Your task to perform on an android device: turn on the 12-hour format for clock Image 0: 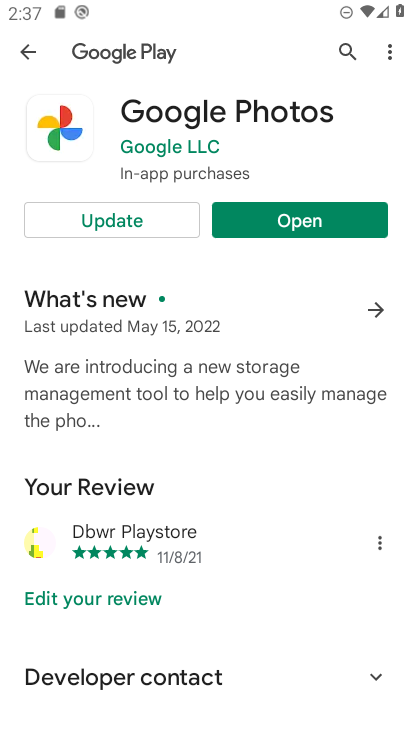
Step 0: press home button
Your task to perform on an android device: turn on the 12-hour format for clock Image 1: 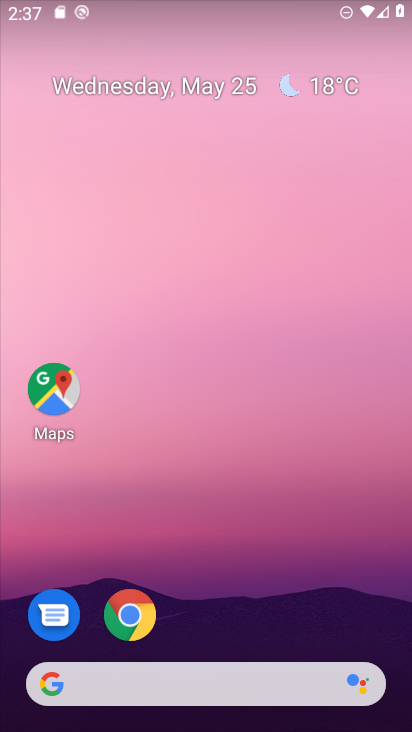
Step 1: drag from (238, 560) to (330, 50)
Your task to perform on an android device: turn on the 12-hour format for clock Image 2: 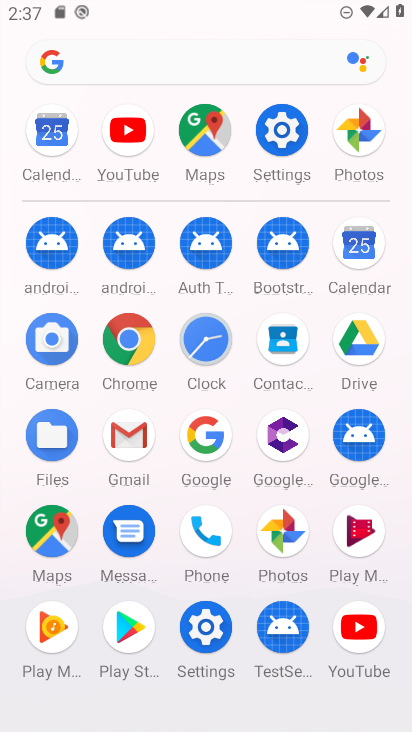
Step 2: click (351, 241)
Your task to perform on an android device: turn on the 12-hour format for clock Image 3: 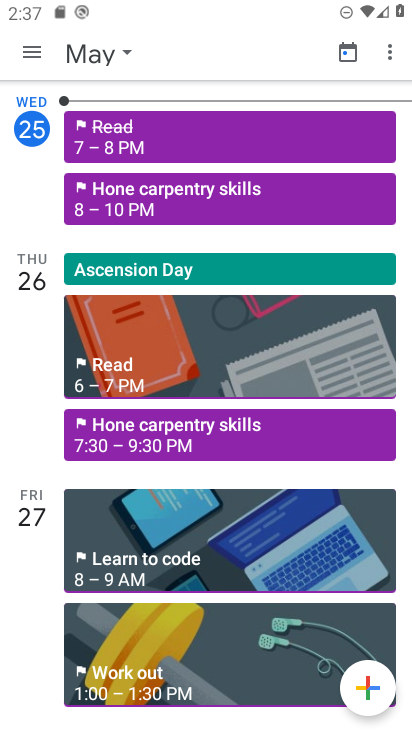
Step 3: press home button
Your task to perform on an android device: turn on the 12-hour format for clock Image 4: 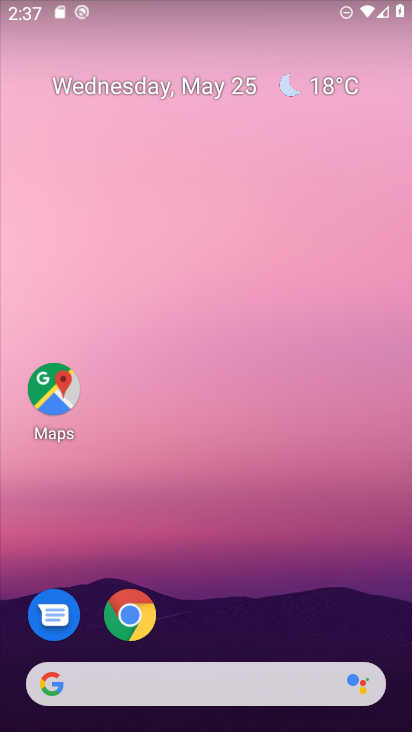
Step 4: drag from (283, 561) to (359, 35)
Your task to perform on an android device: turn on the 12-hour format for clock Image 5: 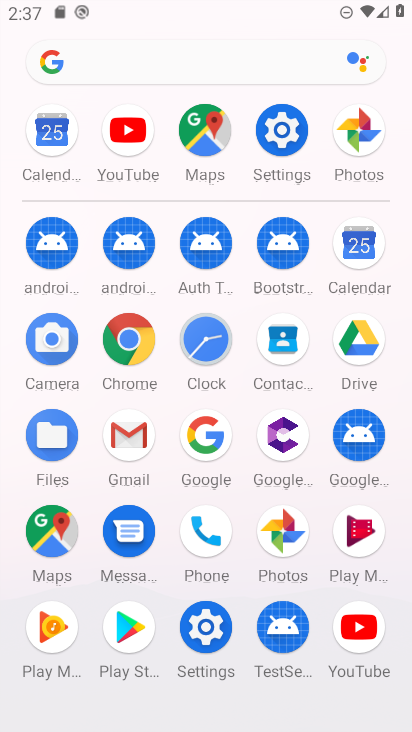
Step 5: click (210, 338)
Your task to perform on an android device: turn on the 12-hour format for clock Image 6: 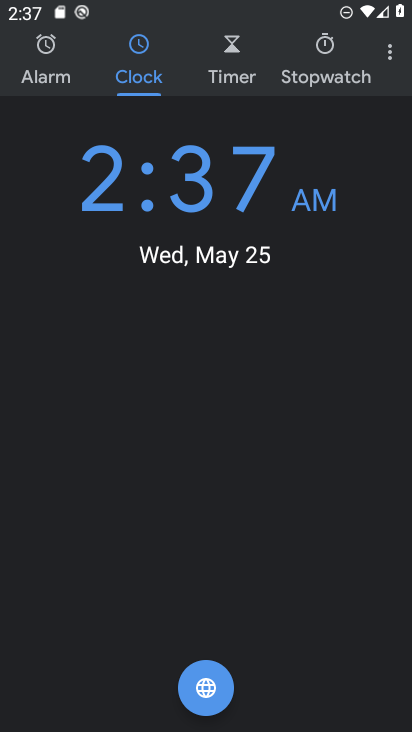
Step 6: click (391, 53)
Your task to perform on an android device: turn on the 12-hour format for clock Image 7: 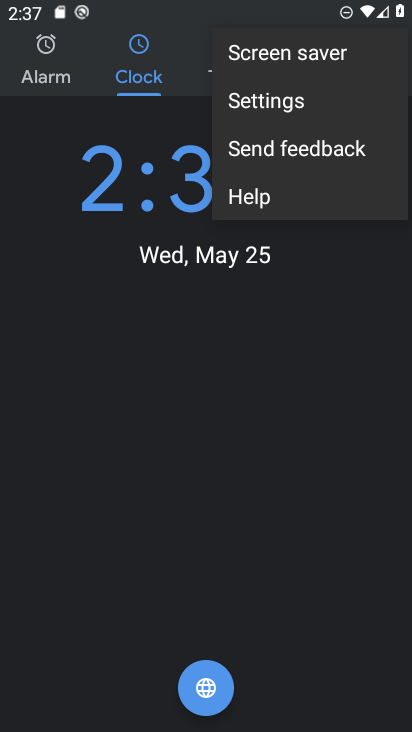
Step 7: click (353, 99)
Your task to perform on an android device: turn on the 12-hour format for clock Image 8: 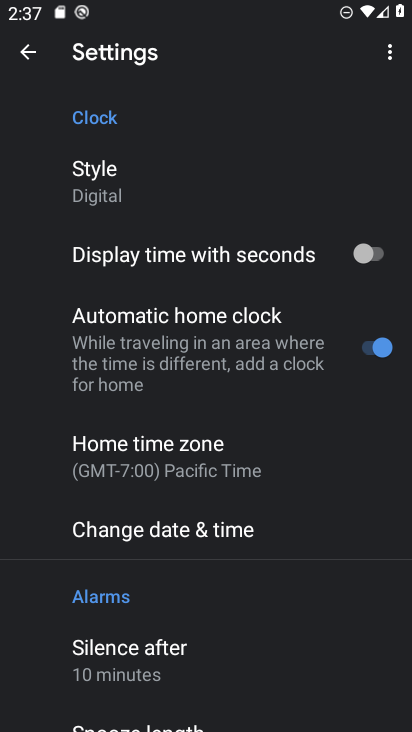
Step 8: click (268, 526)
Your task to perform on an android device: turn on the 12-hour format for clock Image 9: 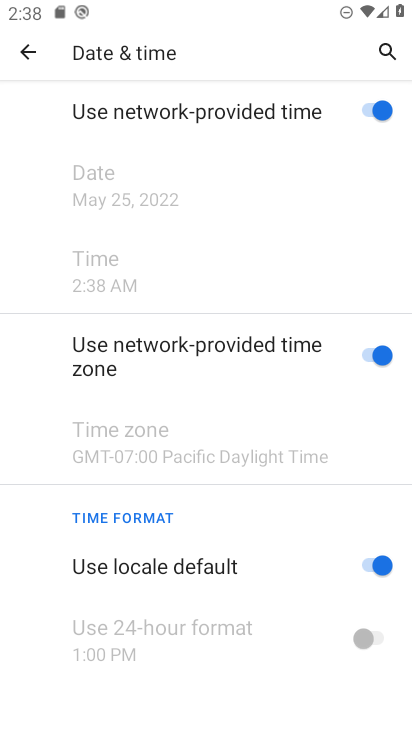
Step 9: task complete